Your task to perform on an android device: Do I have any events this weekend? Image 0: 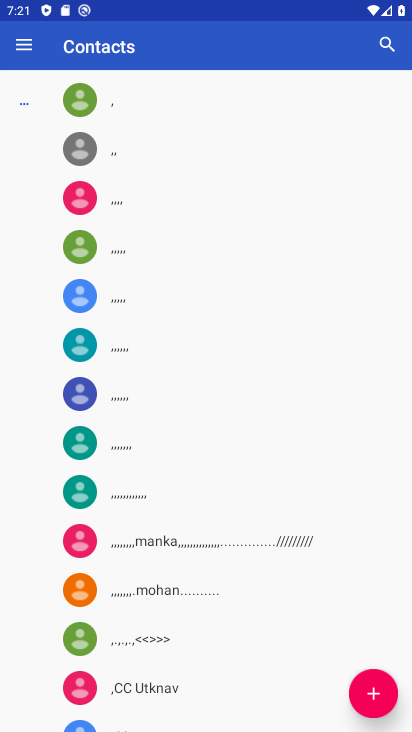
Step 0: press home button
Your task to perform on an android device: Do I have any events this weekend? Image 1: 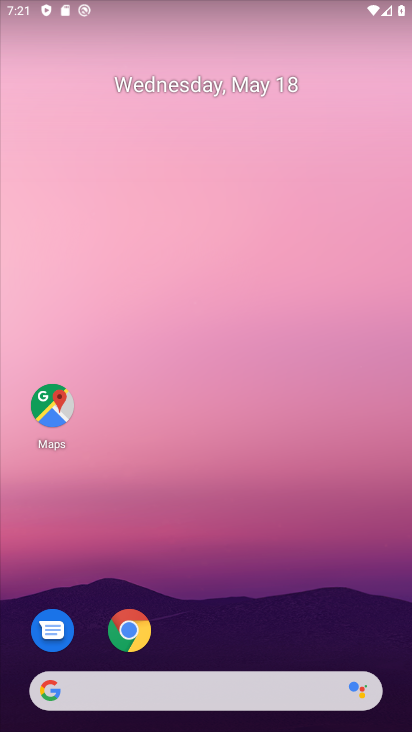
Step 1: drag from (206, 583) to (79, 8)
Your task to perform on an android device: Do I have any events this weekend? Image 2: 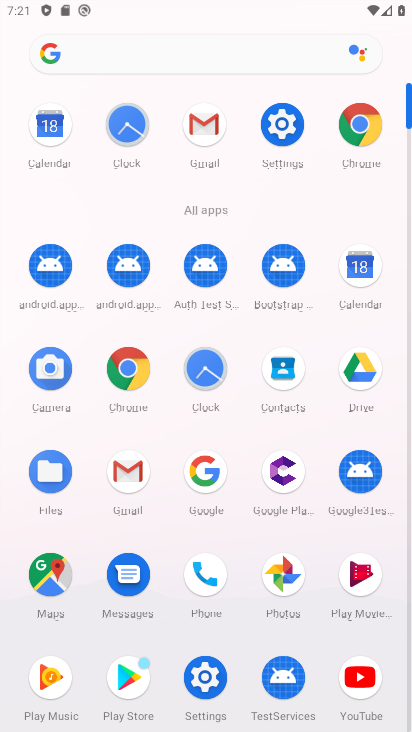
Step 2: click (352, 269)
Your task to perform on an android device: Do I have any events this weekend? Image 3: 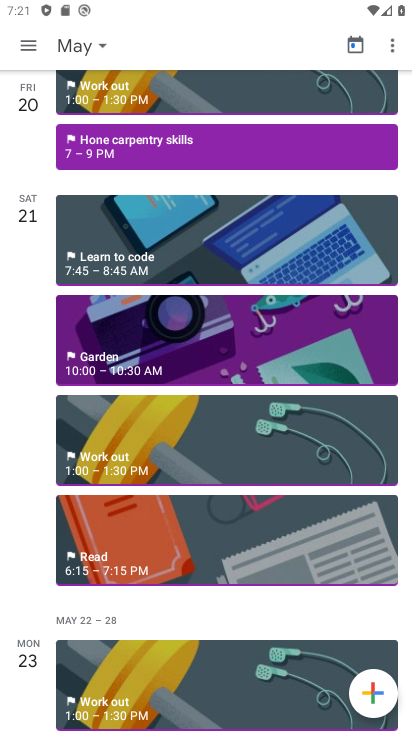
Step 3: click (35, 43)
Your task to perform on an android device: Do I have any events this weekend? Image 4: 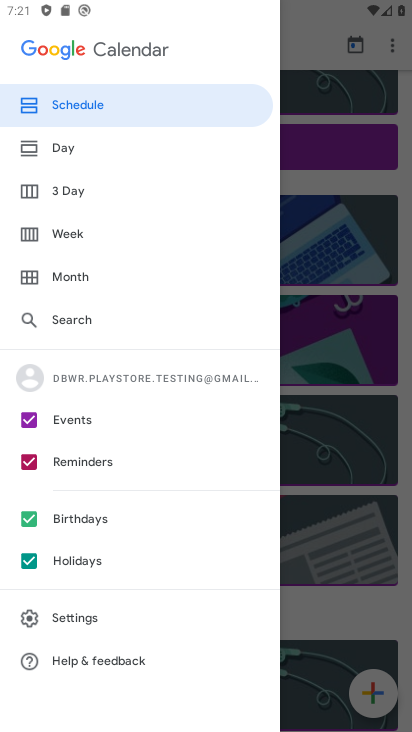
Step 4: click (84, 231)
Your task to perform on an android device: Do I have any events this weekend? Image 5: 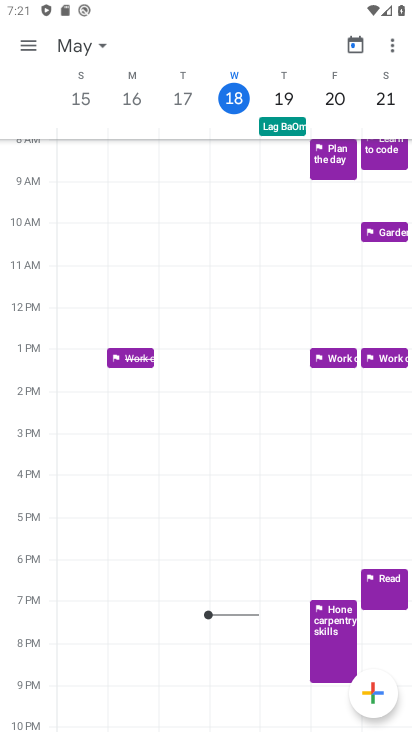
Step 5: task complete